Your task to perform on an android device: open sync settings in chrome Image 0: 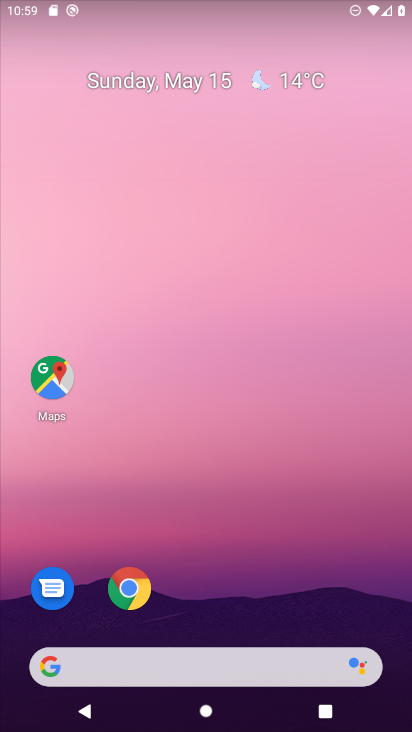
Step 0: click (231, 343)
Your task to perform on an android device: open sync settings in chrome Image 1: 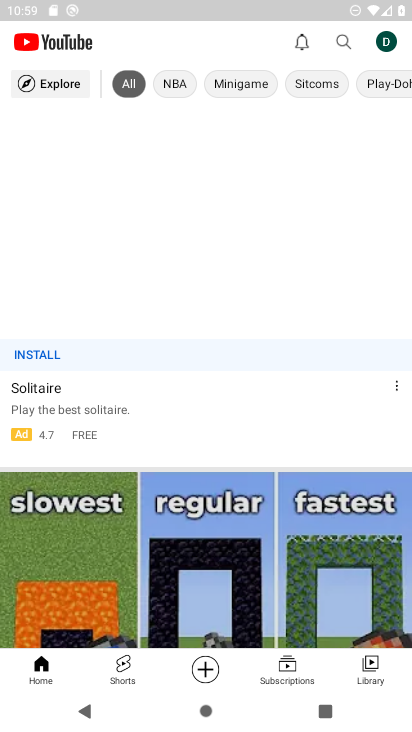
Step 1: press home button
Your task to perform on an android device: open sync settings in chrome Image 2: 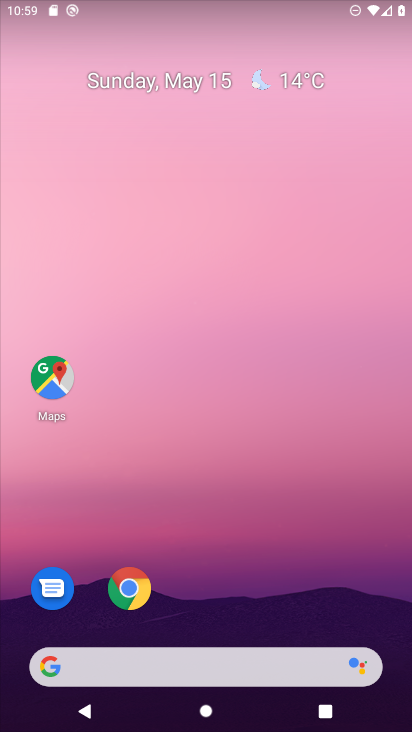
Step 2: click (137, 582)
Your task to perform on an android device: open sync settings in chrome Image 3: 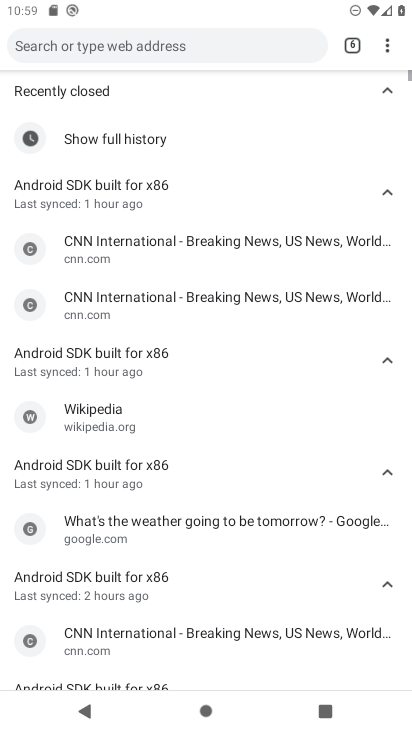
Step 3: click (398, 53)
Your task to perform on an android device: open sync settings in chrome Image 4: 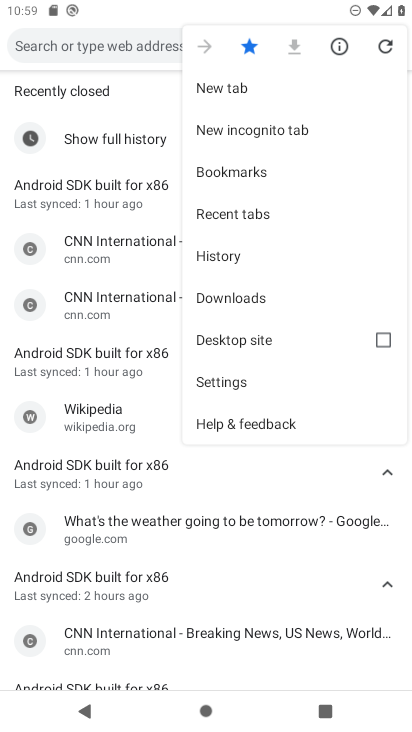
Step 4: click (238, 382)
Your task to perform on an android device: open sync settings in chrome Image 5: 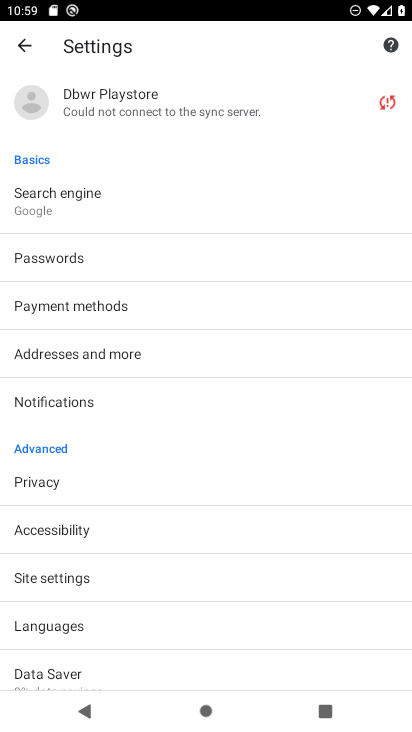
Step 5: click (149, 111)
Your task to perform on an android device: open sync settings in chrome Image 6: 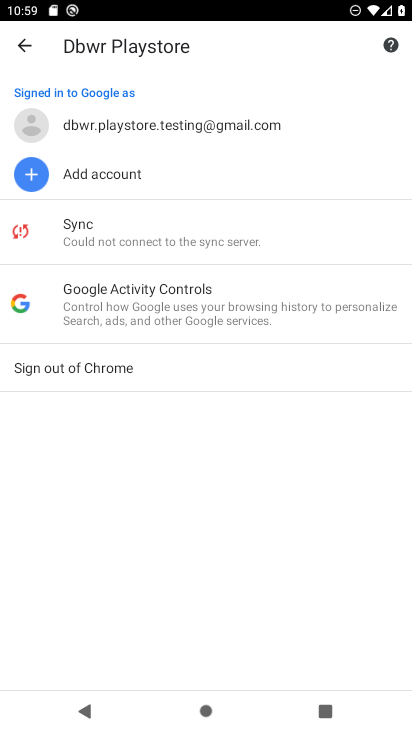
Step 6: click (138, 246)
Your task to perform on an android device: open sync settings in chrome Image 7: 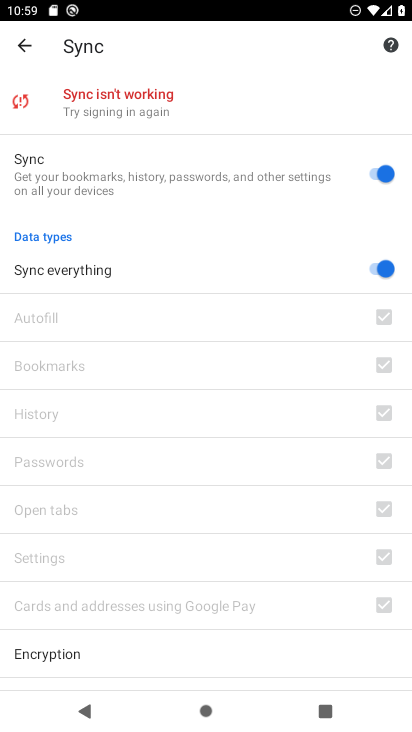
Step 7: task complete